Your task to perform on an android device: Go to privacy settings Image 0: 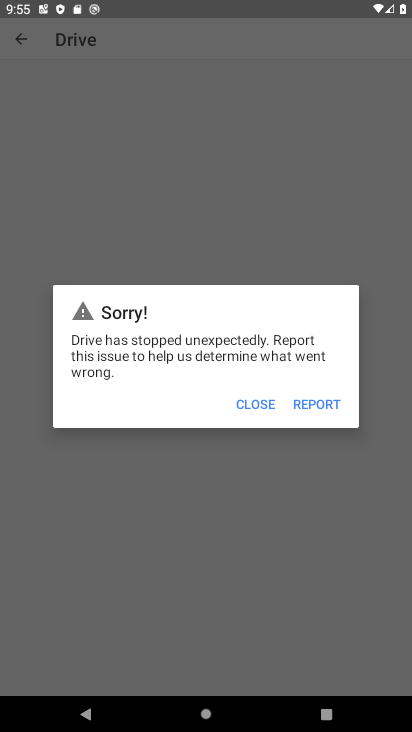
Step 0: press back button
Your task to perform on an android device: Go to privacy settings Image 1: 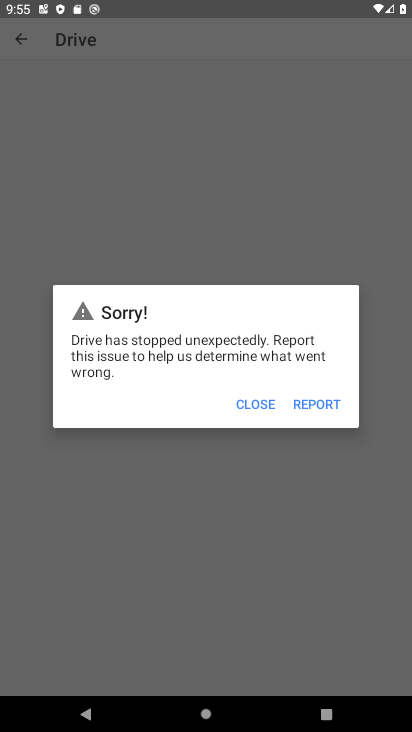
Step 1: press home button
Your task to perform on an android device: Go to privacy settings Image 2: 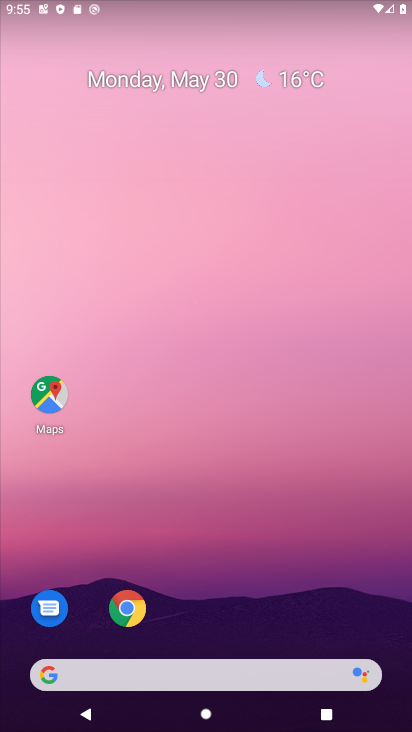
Step 2: click (123, 603)
Your task to perform on an android device: Go to privacy settings Image 3: 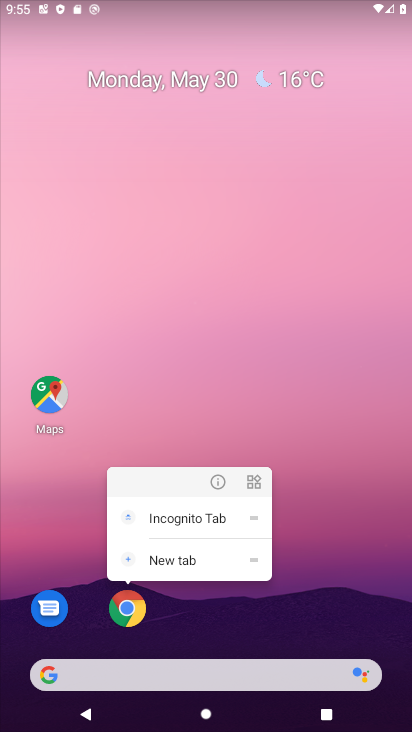
Step 3: click (126, 597)
Your task to perform on an android device: Go to privacy settings Image 4: 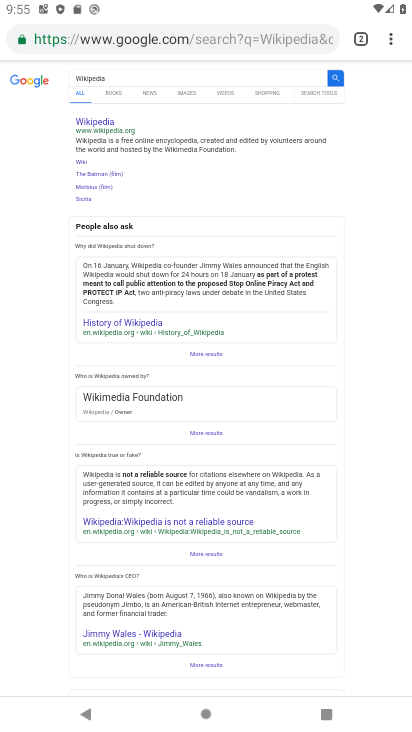
Step 4: click (386, 32)
Your task to perform on an android device: Go to privacy settings Image 5: 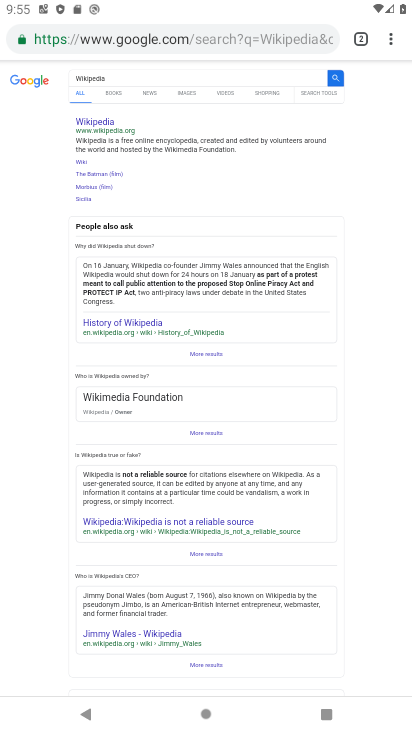
Step 5: click (391, 39)
Your task to perform on an android device: Go to privacy settings Image 6: 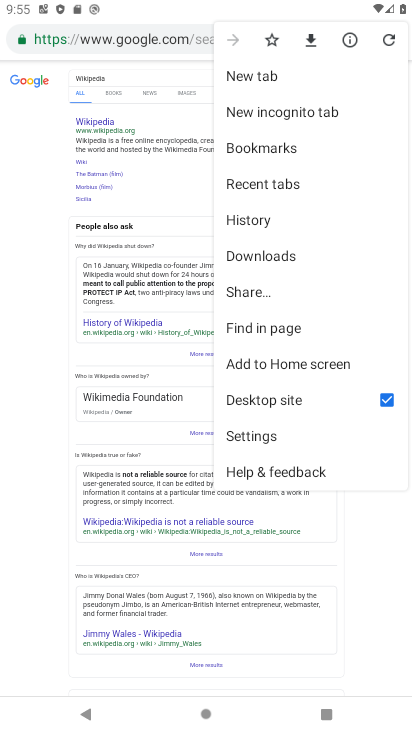
Step 6: click (261, 433)
Your task to perform on an android device: Go to privacy settings Image 7: 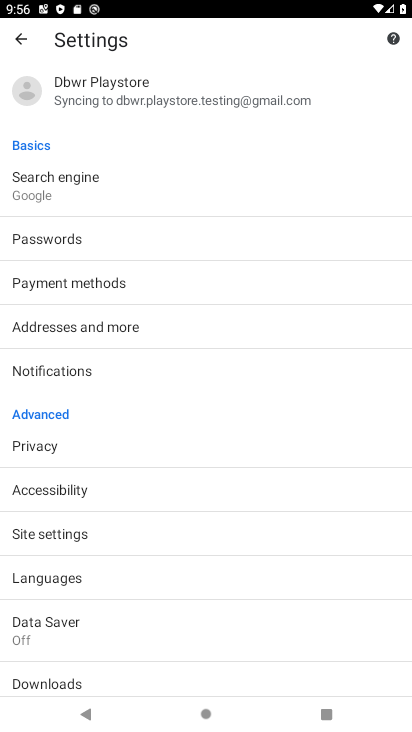
Step 7: drag from (191, 648) to (214, 296)
Your task to perform on an android device: Go to privacy settings Image 8: 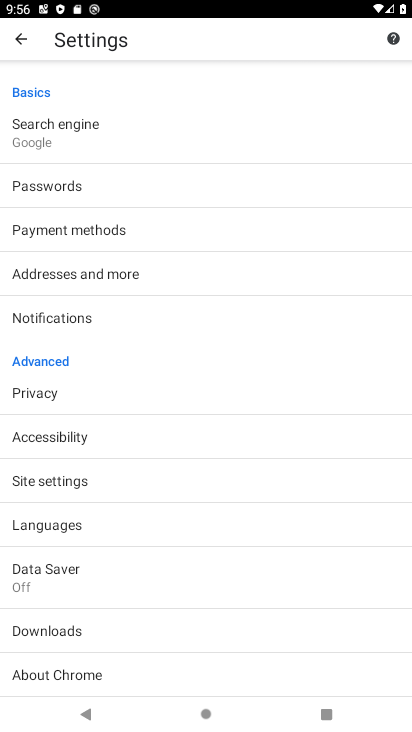
Step 8: click (56, 385)
Your task to perform on an android device: Go to privacy settings Image 9: 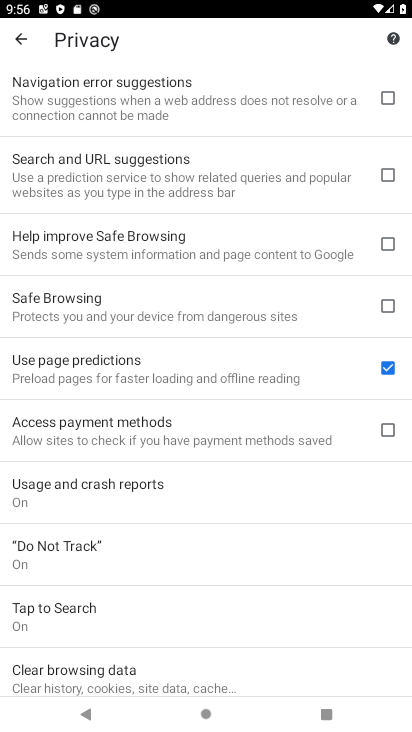
Step 9: task complete